Your task to perform on an android device: turn on notifications settings in the gmail app Image 0: 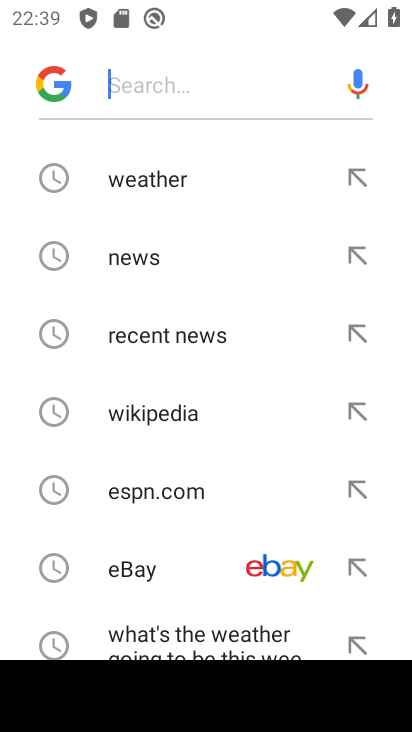
Step 0: press home button
Your task to perform on an android device: turn on notifications settings in the gmail app Image 1: 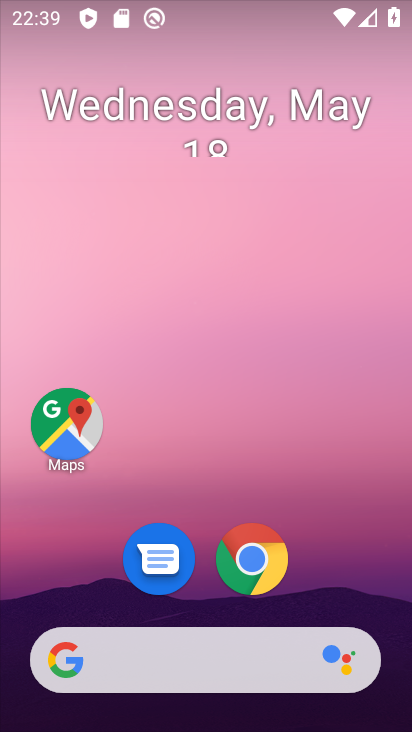
Step 1: drag from (299, 599) to (220, 62)
Your task to perform on an android device: turn on notifications settings in the gmail app Image 2: 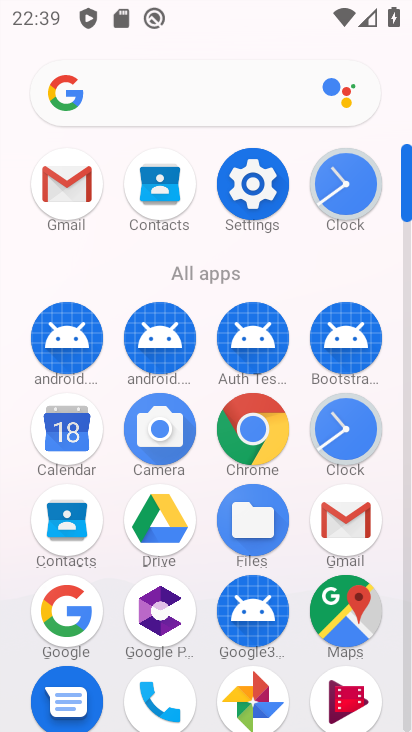
Step 2: click (241, 170)
Your task to perform on an android device: turn on notifications settings in the gmail app Image 3: 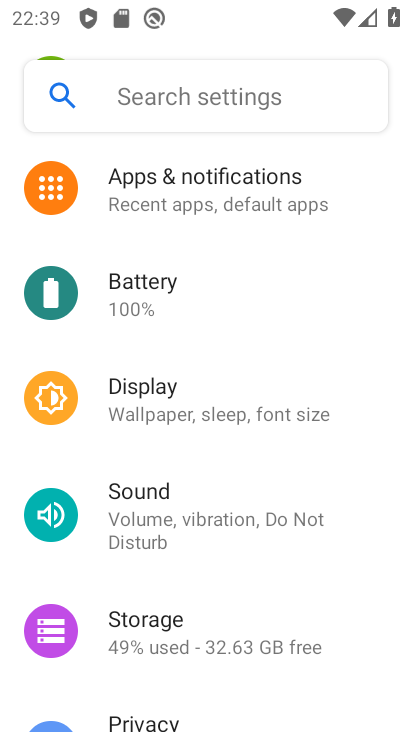
Step 3: click (175, 528)
Your task to perform on an android device: turn on notifications settings in the gmail app Image 4: 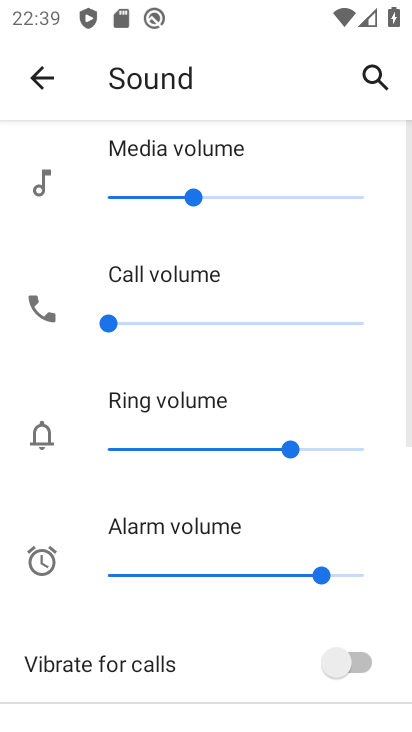
Step 4: task complete